Your task to perform on an android device: refresh tabs in the chrome app Image 0: 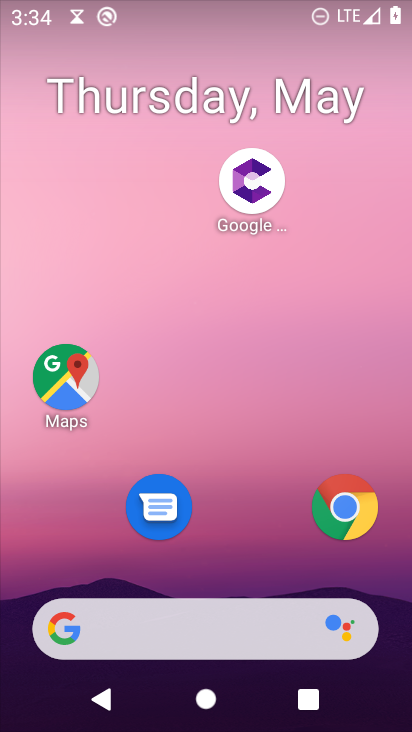
Step 0: press home button
Your task to perform on an android device: refresh tabs in the chrome app Image 1: 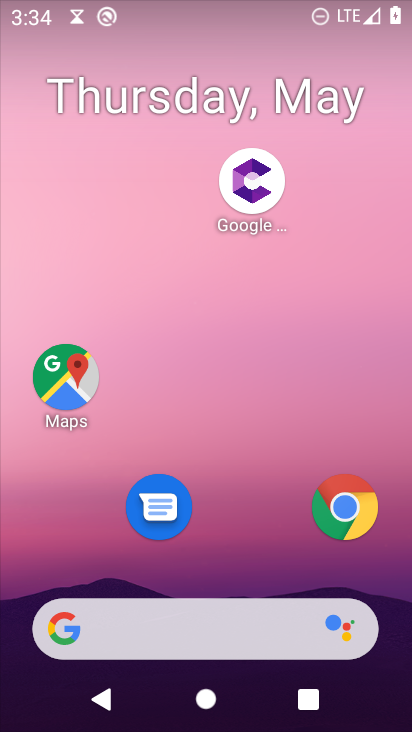
Step 1: click (338, 520)
Your task to perform on an android device: refresh tabs in the chrome app Image 2: 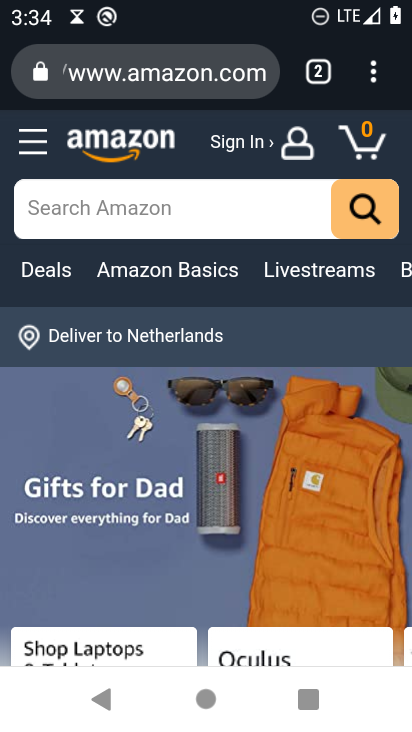
Step 2: click (375, 76)
Your task to perform on an android device: refresh tabs in the chrome app Image 3: 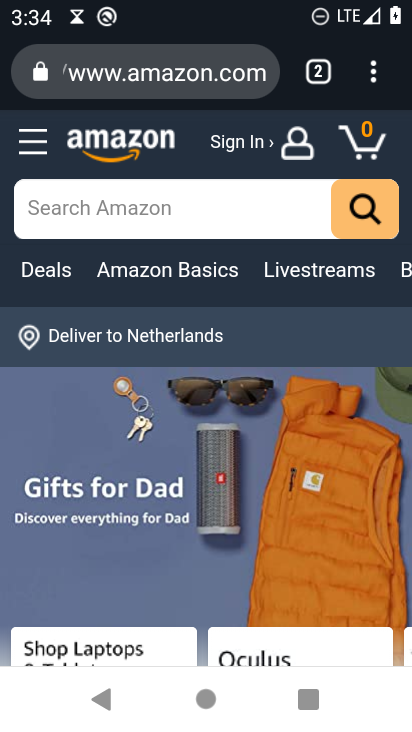
Step 3: click (377, 66)
Your task to perform on an android device: refresh tabs in the chrome app Image 4: 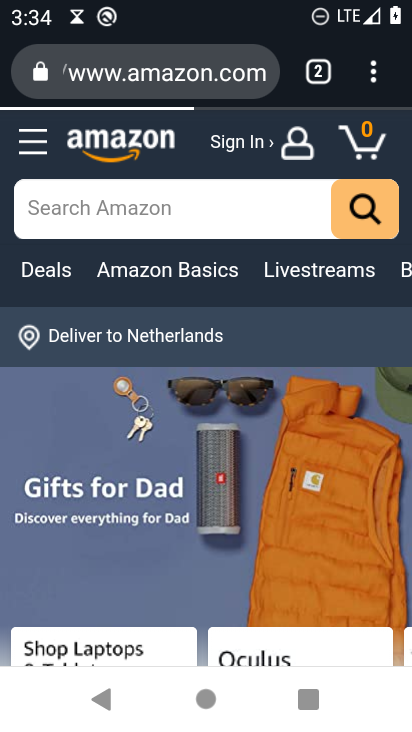
Step 4: click (376, 65)
Your task to perform on an android device: refresh tabs in the chrome app Image 5: 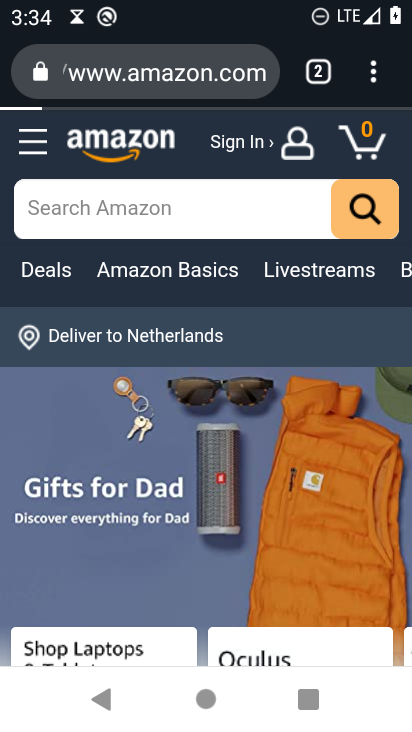
Step 5: click (376, 65)
Your task to perform on an android device: refresh tabs in the chrome app Image 6: 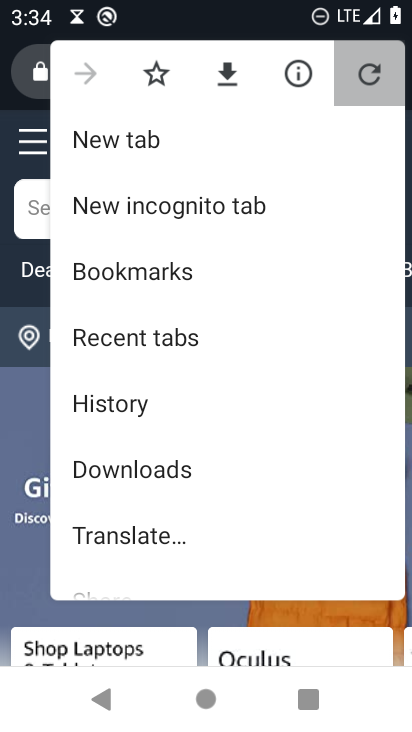
Step 6: click (382, 75)
Your task to perform on an android device: refresh tabs in the chrome app Image 7: 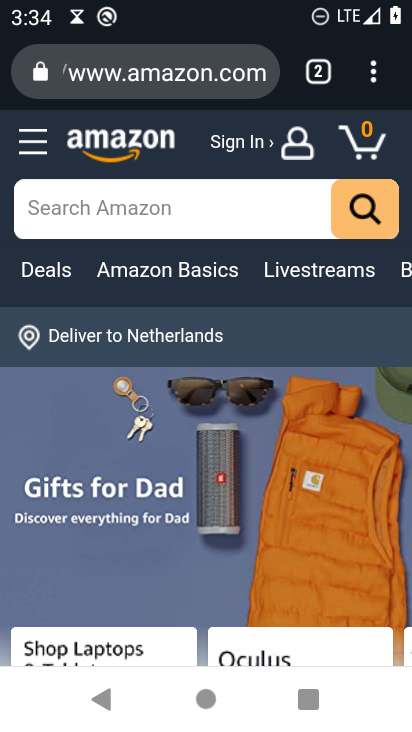
Step 7: task complete